Your task to perform on an android device: Find coffee shops on Maps Image 0: 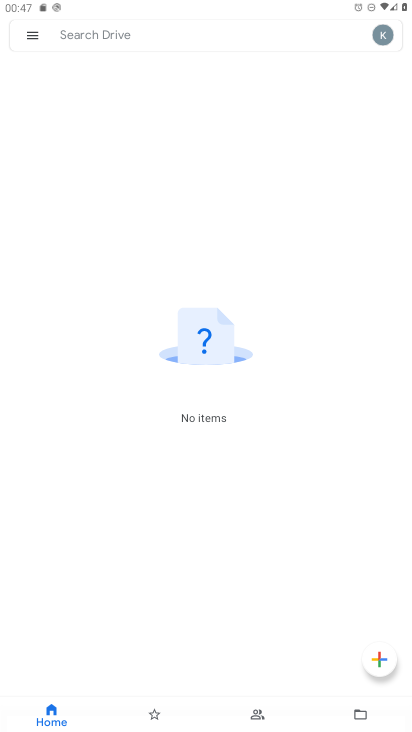
Step 0: press home button
Your task to perform on an android device: Find coffee shops on Maps Image 1: 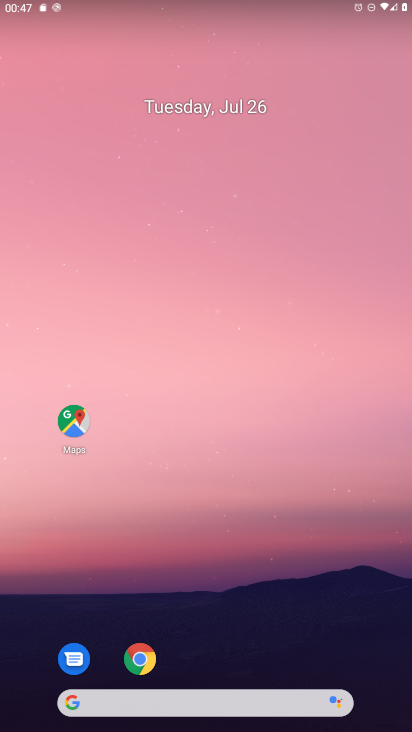
Step 1: drag from (224, 625) to (194, 105)
Your task to perform on an android device: Find coffee shops on Maps Image 2: 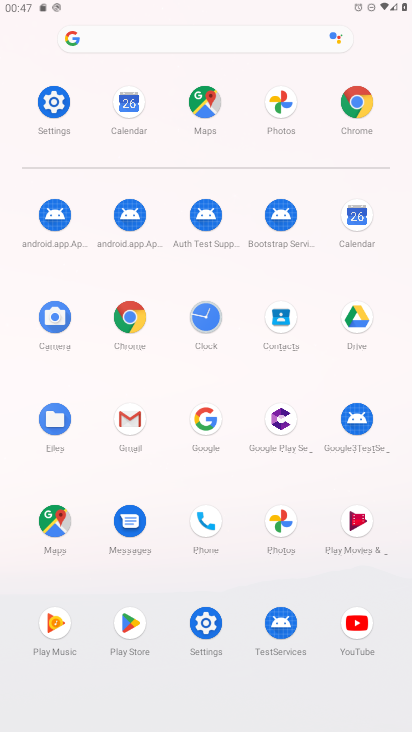
Step 2: click (53, 511)
Your task to perform on an android device: Find coffee shops on Maps Image 3: 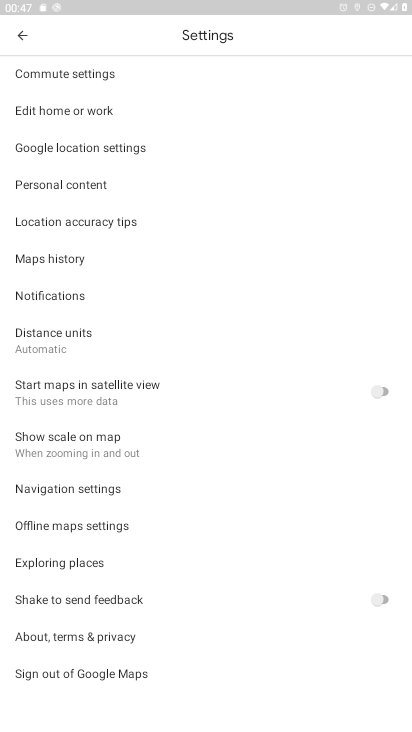
Step 3: click (19, 34)
Your task to perform on an android device: Find coffee shops on Maps Image 4: 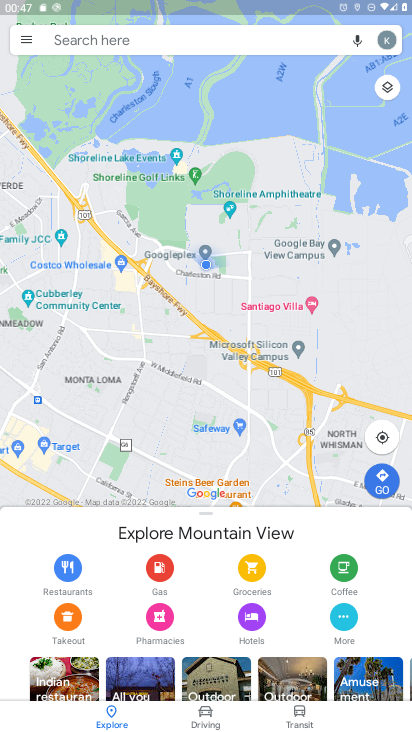
Step 4: click (61, 36)
Your task to perform on an android device: Find coffee shops on Maps Image 5: 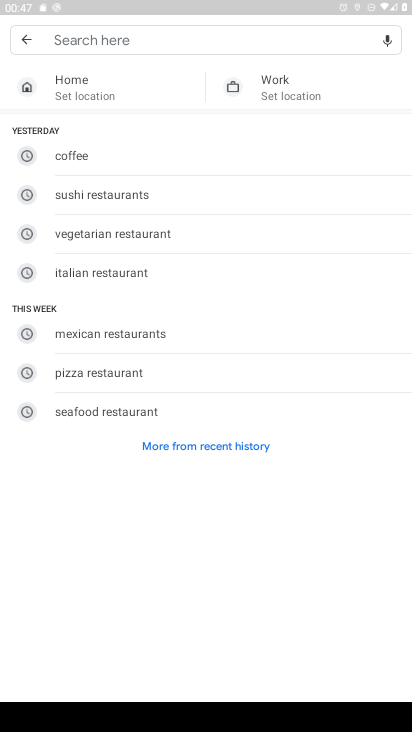
Step 5: type " coffee "
Your task to perform on an android device: Find coffee shops on Maps Image 6: 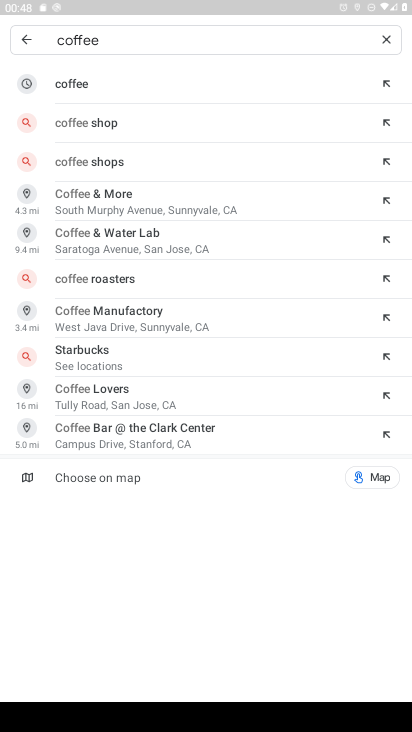
Step 6: click (69, 83)
Your task to perform on an android device: Find coffee shops on Maps Image 7: 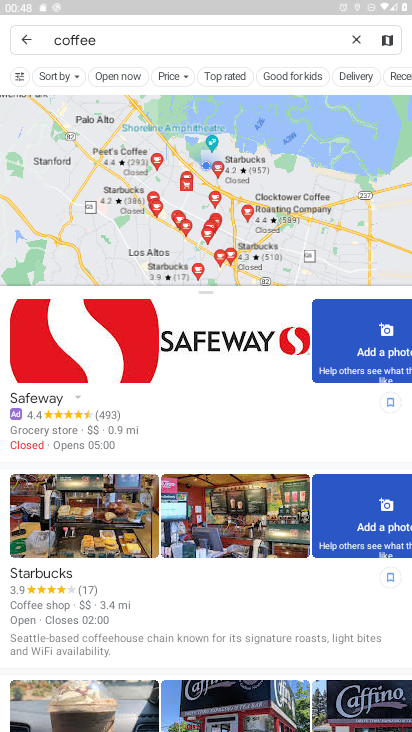
Step 7: task complete